Your task to perform on an android device: turn on priority inbox in the gmail app Image 0: 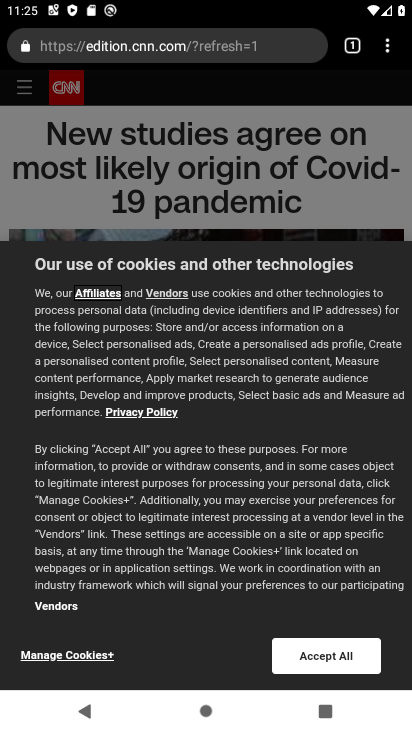
Step 0: task complete